Your task to perform on an android device: Go to Yahoo.com Image 0: 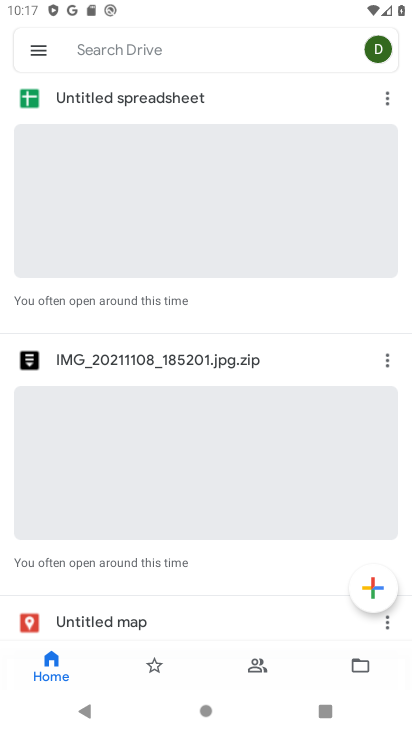
Step 0: press back button
Your task to perform on an android device: Go to Yahoo.com Image 1: 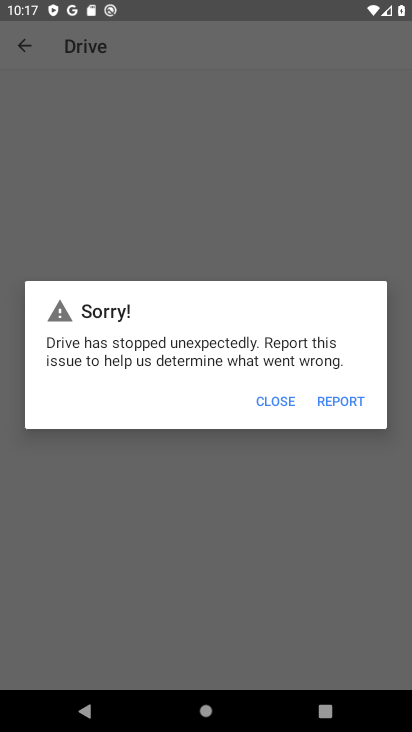
Step 1: click (273, 400)
Your task to perform on an android device: Go to Yahoo.com Image 2: 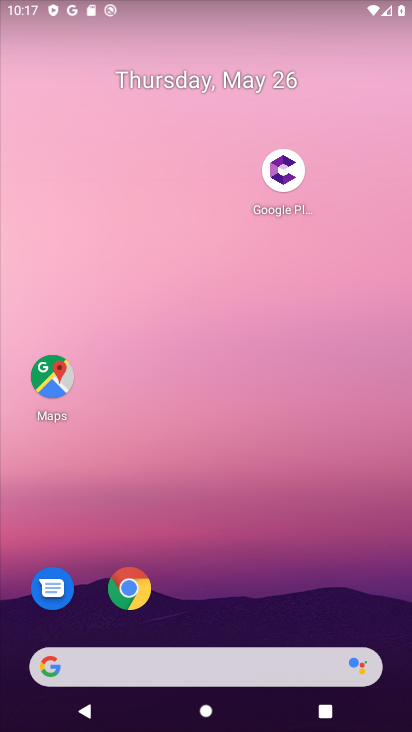
Step 2: drag from (175, 381) to (146, 169)
Your task to perform on an android device: Go to Yahoo.com Image 3: 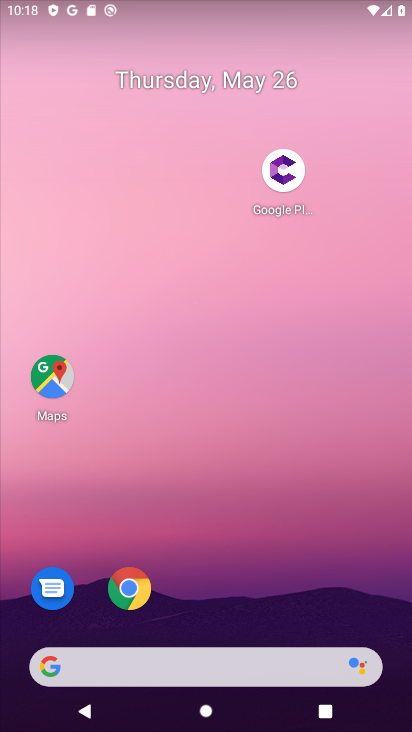
Step 3: drag from (272, 678) to (226, 29)
Your task to perform on an android device: Go to Yahoo.com Image 4: 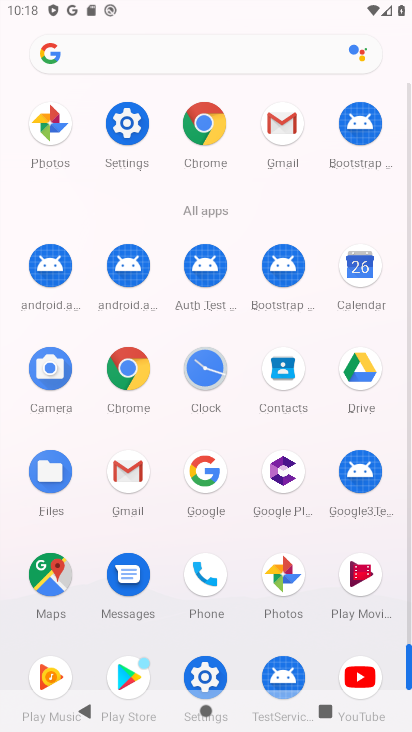
Step 4: drag from (238, 435) to (206, 121)
Your task to perform on an android device: Go to Yahoo.com Image 5: 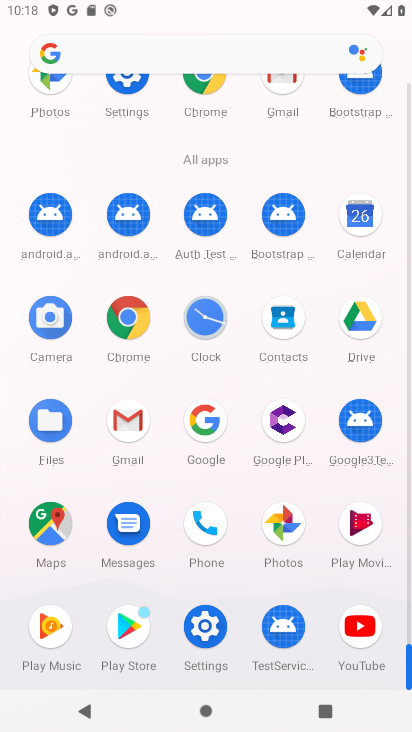
Step 5: drag from (233, 421) to (192, 136)
Your task to perform on an android device: Go to Yahoo.com Image 6: 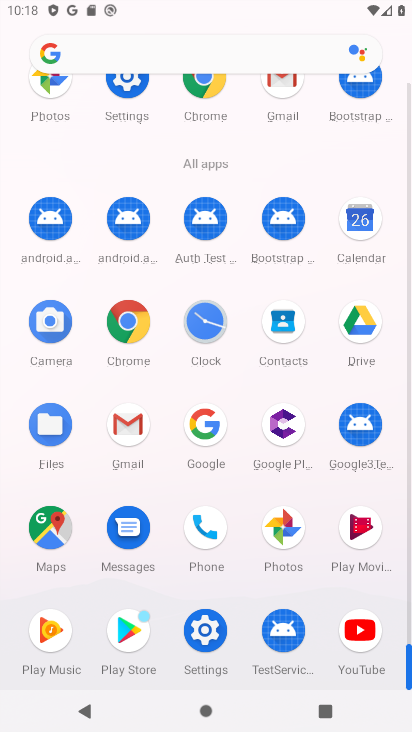
Step 6: drag from (205, 372) to (200, 165)
Your task to perform on an android device: Go to Yahoo.com Image 7: 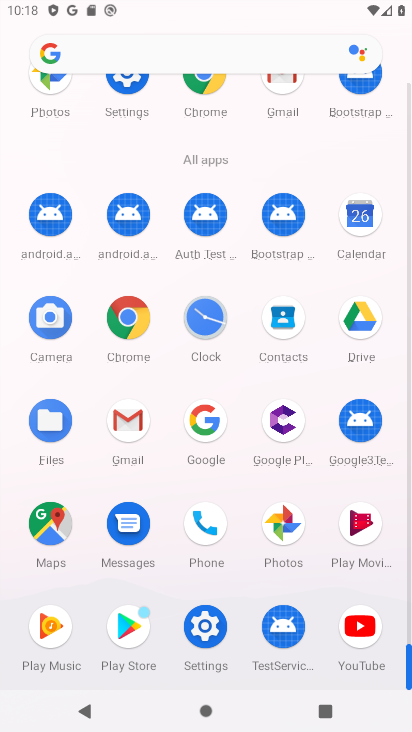
Step 7: drag from (219, 155) to (237, 544)
Your task to perform on an android device: Go to Yahoo.com Image 8: 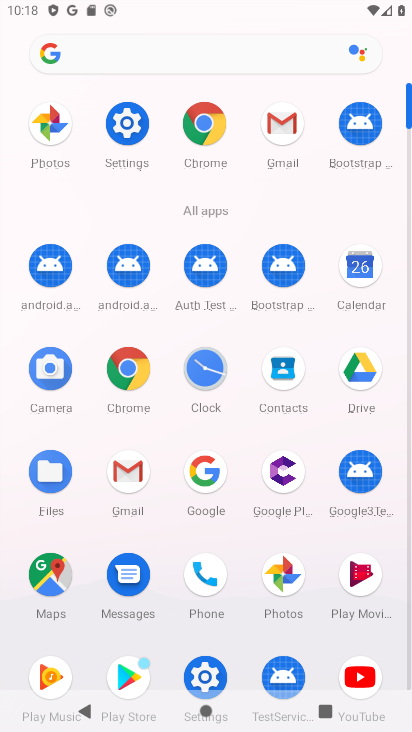
Step 8: click (210, 125)
Your task to perform on an android device: Go to Yahoo.com Image 9: 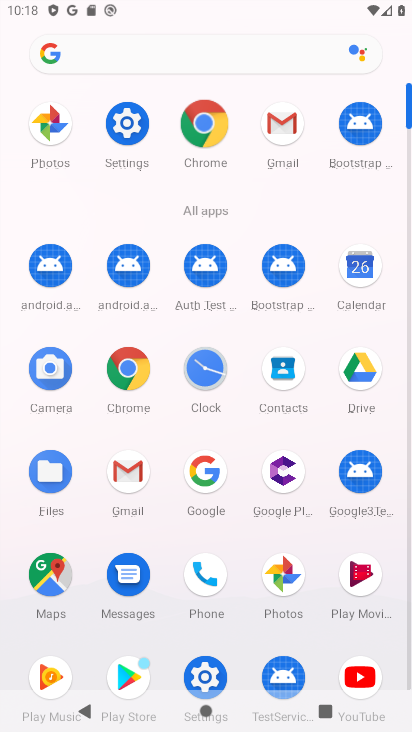
Step 9: click (210, 125)
Your task to perform on an android device: Go to Yahoo.com Image 10: 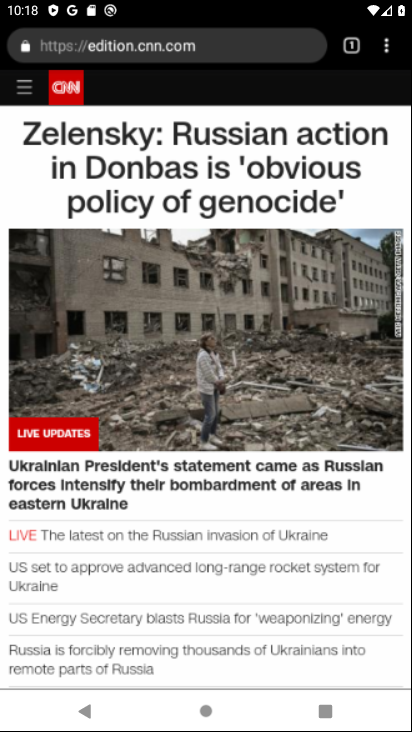
Step 10: click (211, 126)
Your task to perform on an android device: Go to Yahoo.com Image 11: 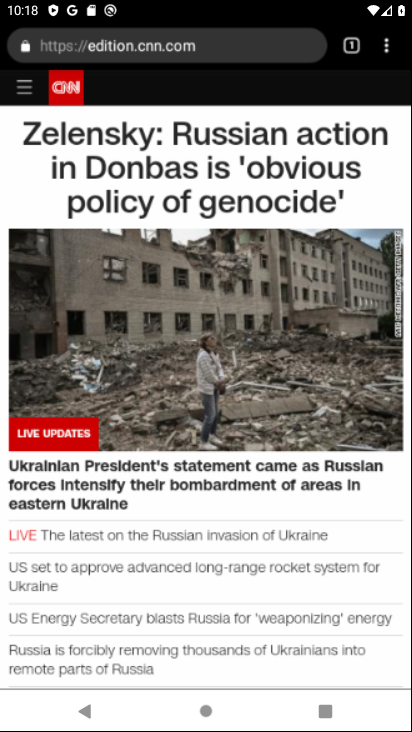
Step 11: click (211, 126)
Your task to perform on an android device: Go to Yahoo.com Image 12: 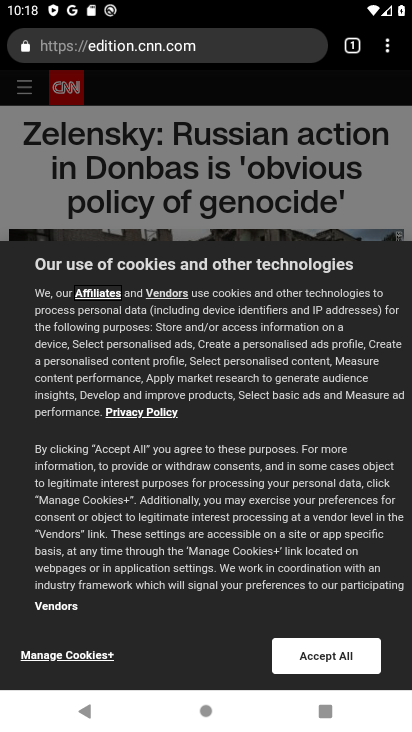
Step 12: click (384, 52)
Your task to perform on an android device: Go to Yahoo.com Image 13: 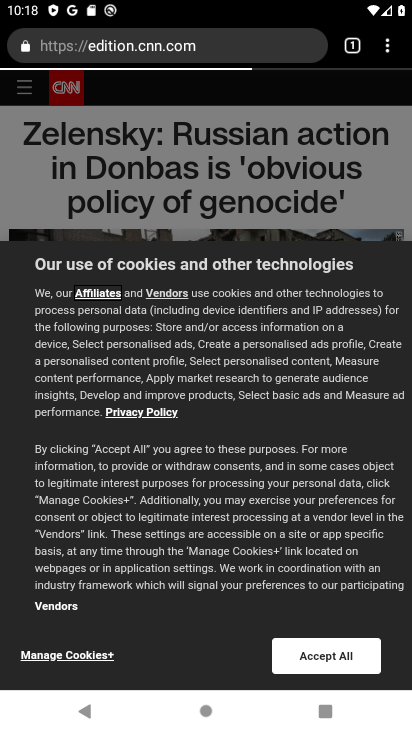
Step 13: drag from (388, 53) to (241, 84)
Your task to perform on an android device: Go to Yahoo.com Image 14: 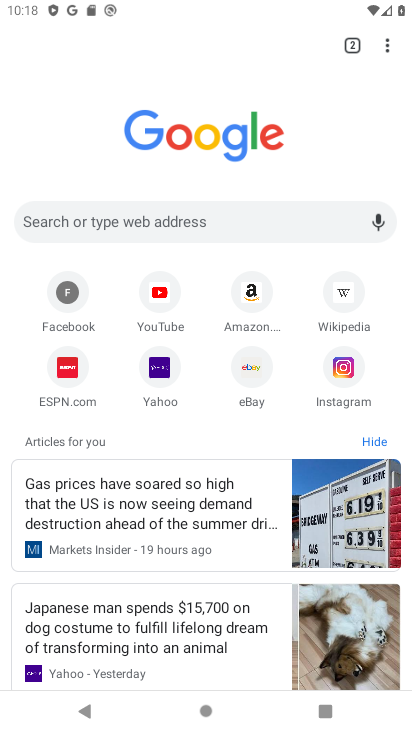
Step 14: click (241, 84)
Your task to perform on an android device: Go to Yahoo.com Image 15: 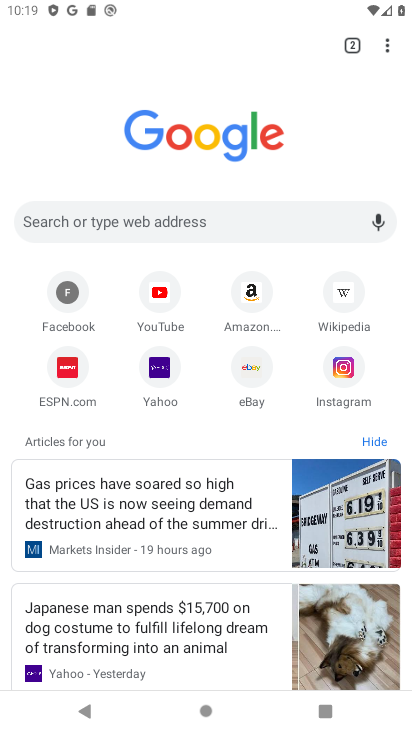
Step 15: click (136, 369)
Your task to perform on an android device: Go to Yahoo.com Image 16: 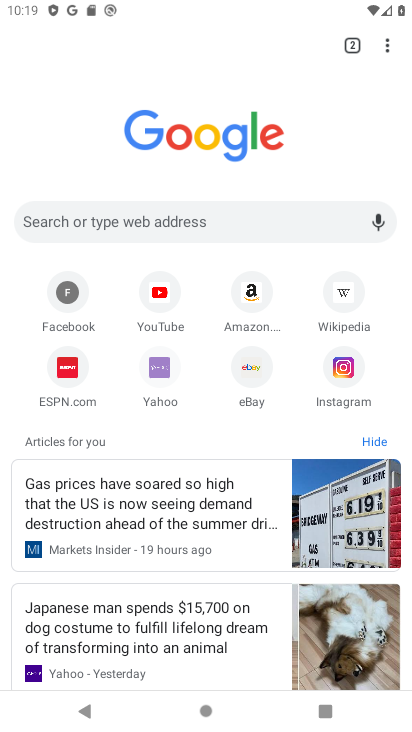
Step 16: click (160, 372)
Your task to perform on an android device: Go to Yahoo.com Image 17: 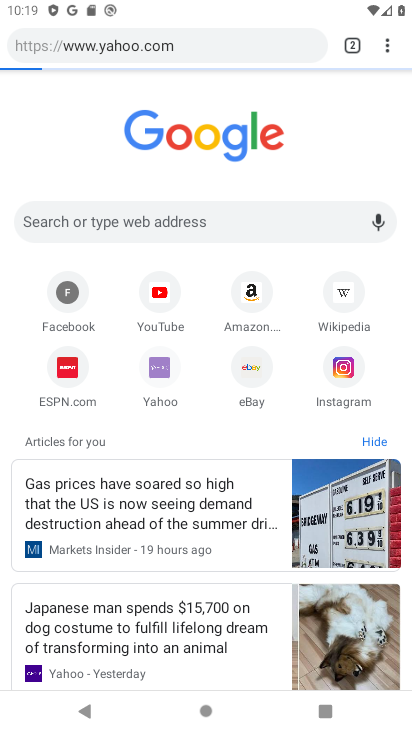
Step 17: click (164, 362)
Your task to perform on an android device: Go to Yahoo.com Image 18: 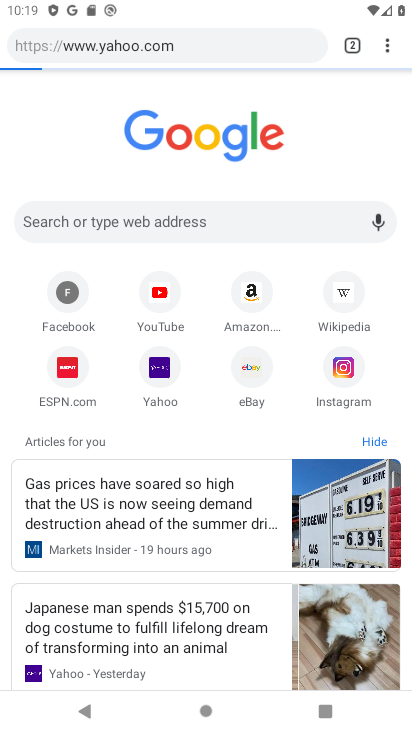
Step 18: click (165, 363)
Your task to perform on an android device: Go to Yahoo.com Image 19: 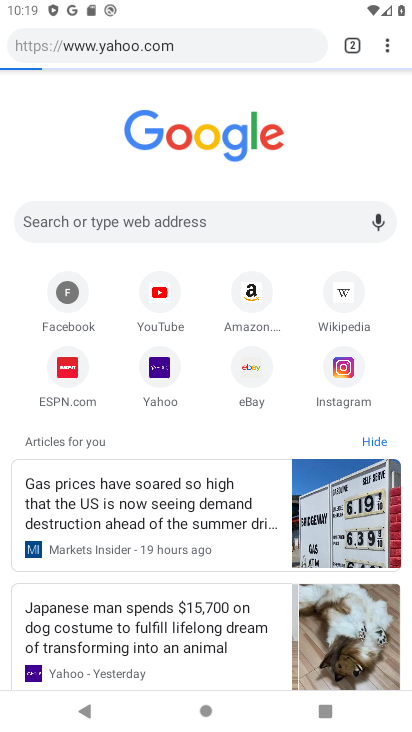
Step 19: click (165, 364)
Your task to perform on an android device: Go to Yahoo.com Image 20: 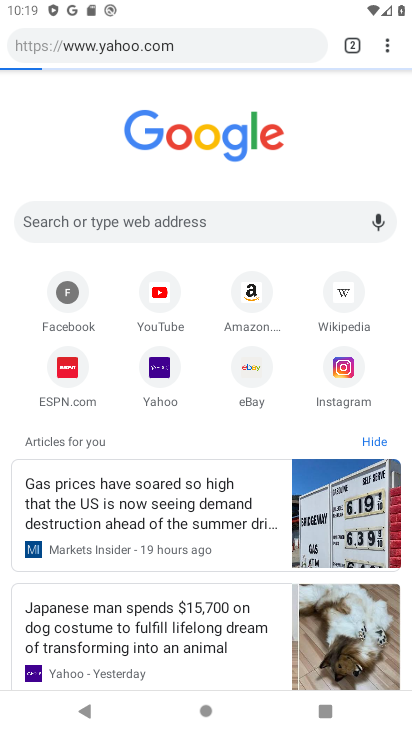
Step 20: click (167, 366)
Your task to perform on an android device: Go to Yahoo.com Image 21: 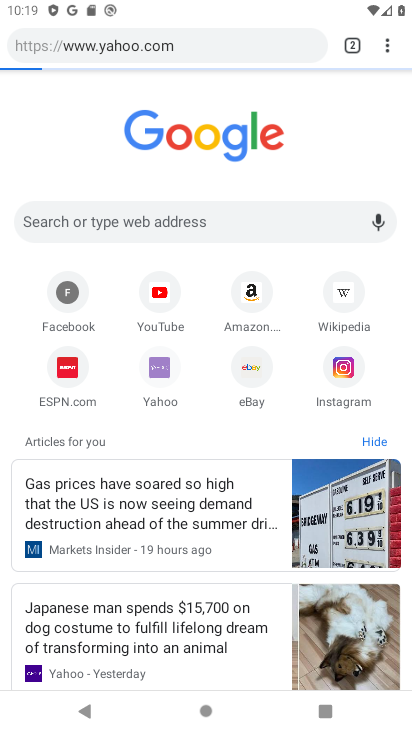
Step 21: click (157, 348)
Your task to perform on an android device: Go to Yahoo.com Image 22: 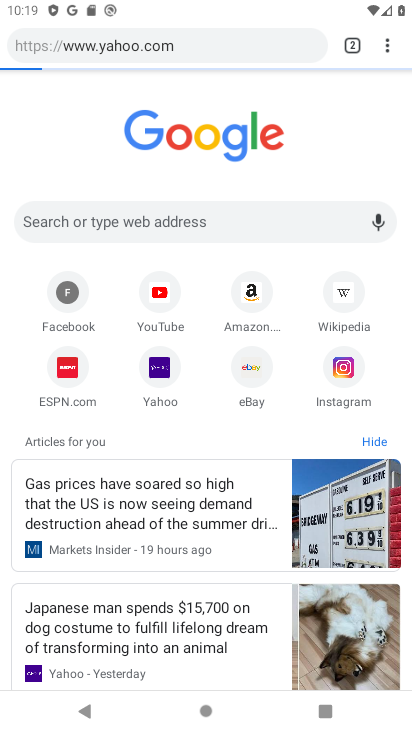
Step 22: click (160, 323)
Your task to perform on an android device: Go to Yahoo.com Image 23: 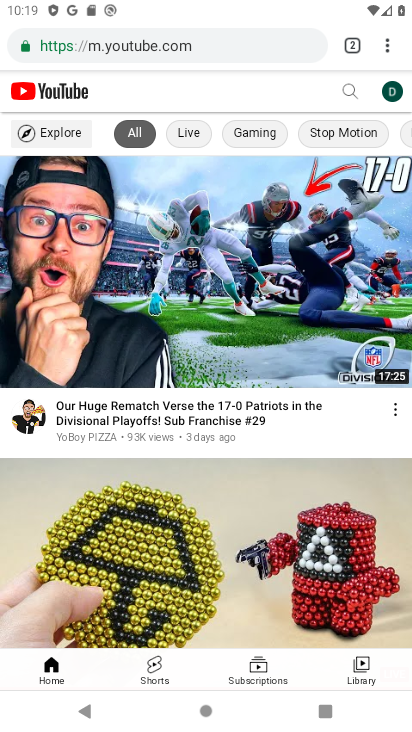
Step 23: task complete